Your task to perform on an android device: visit the assistant section in the google photos Image 0: 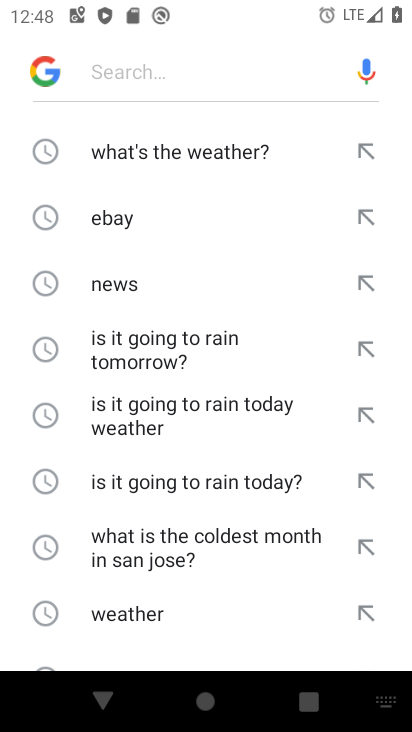
Step 0: press home button
Your task to perform on an android device: visit the assistant section in the google photos Image 1: 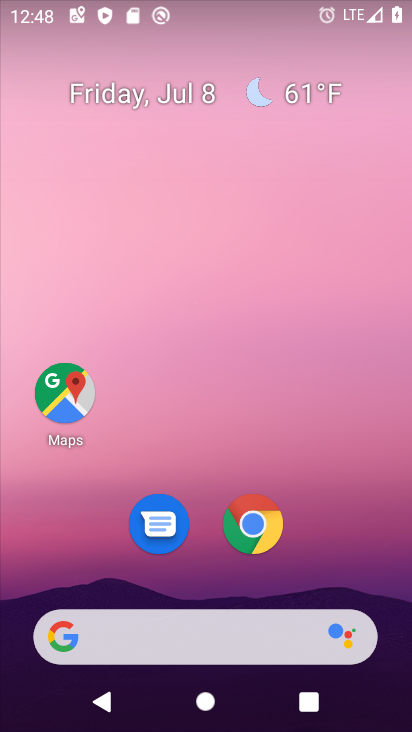
Step 1: drag from (321, 546) to (339, 49)
Your task to perform on an android device: visit the assistant section in the google photos Image 2: 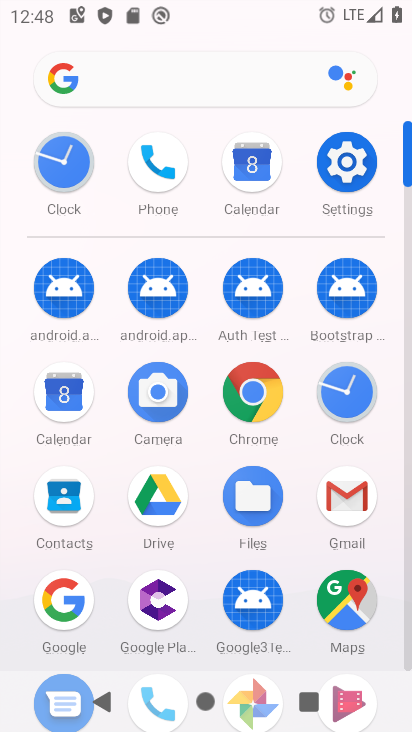
Step 2: drag from (301, 518) to (287, 234)
Your task to perform on an android device: visit the assistant section in the google photos Image 3: 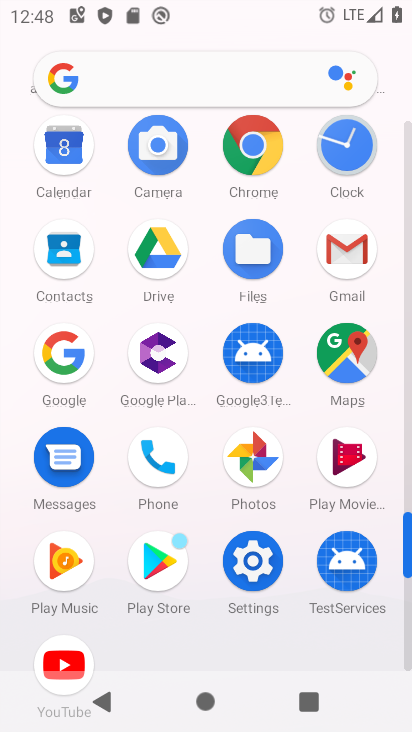
Step 3: click (264, 451)
Your task to perform on an android device: visit the assistant section in the google photos Image 4: 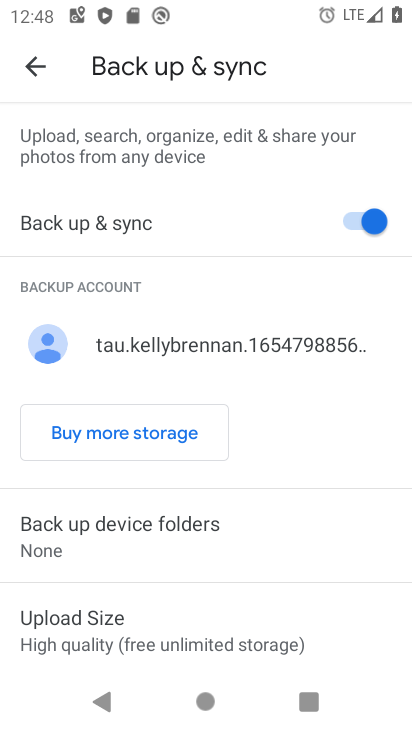
Step 4: click (30, 50)
Your task to perform on an android device: visit the assistant section in the google photos Image 5: 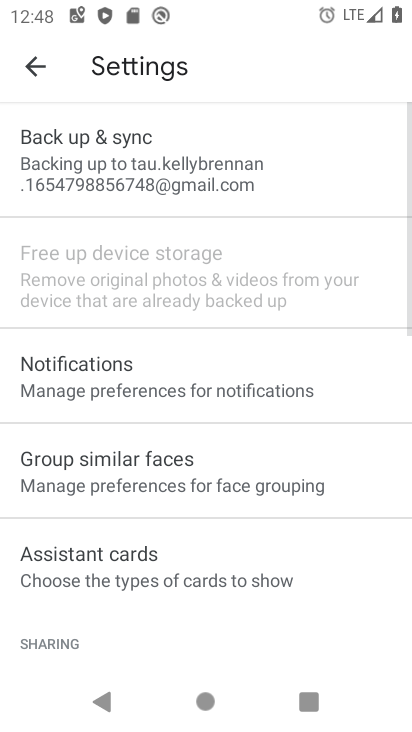
Step 5: click (35, 56)
Your task to perform on an android device: visit the assistant section in the google photos Image 6: 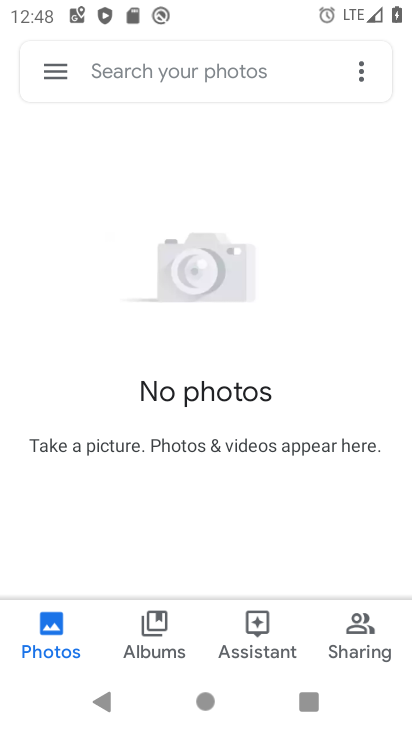
Step 6: click (259, 634)
Your task to perform on an android device: visit the assistant section in the google photos Image 7: 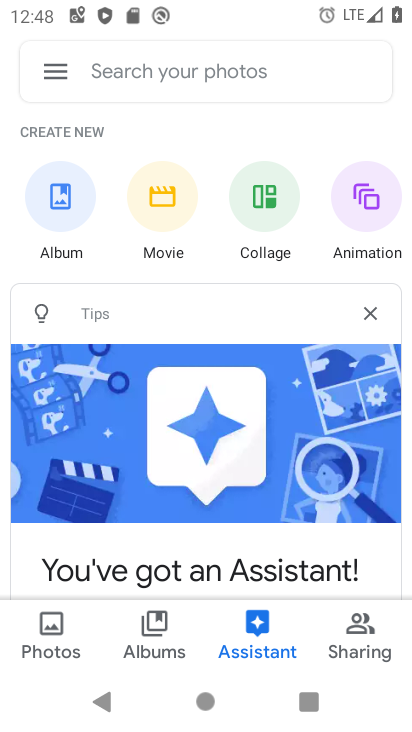
Step 7: task complete